Your task to perform on an android device: Turn off the flashlight Image 0: 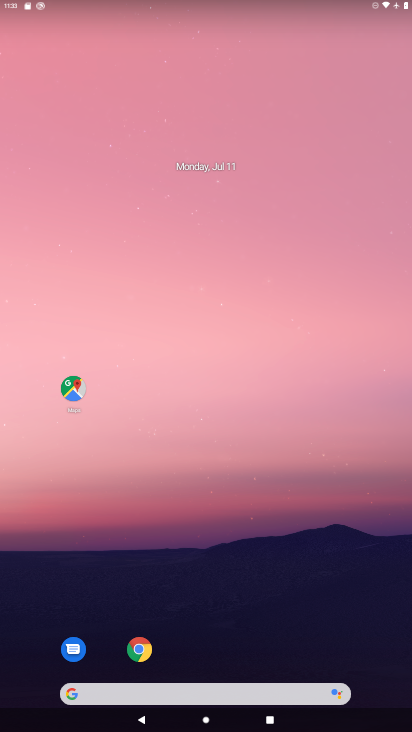
Step 0: drag from (339, 618) to (301, 190)
Your task to perform on an android device: Turn off the flashlight Image 1: 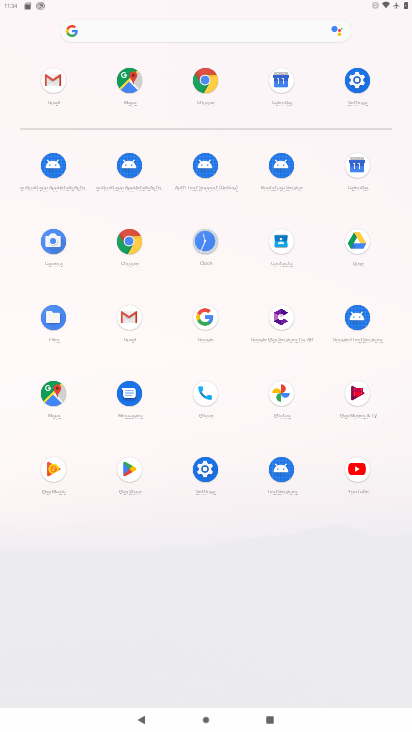
Step 1: click (355, 79)
Your task to perform on an android device: Turn off the flashlight Image 2: 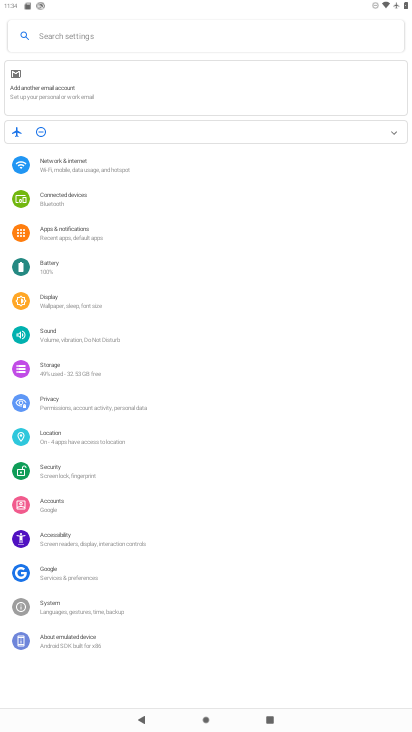
Step 2: click (67, 304)
Your task to perform on an android device: Turn off the flashlight Image 3: 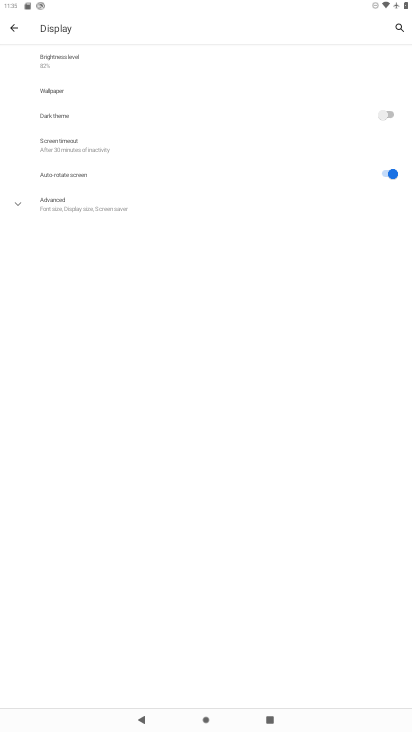
Step 3: task complete